Your task to perform on an android device: turn on wifi Image 0: 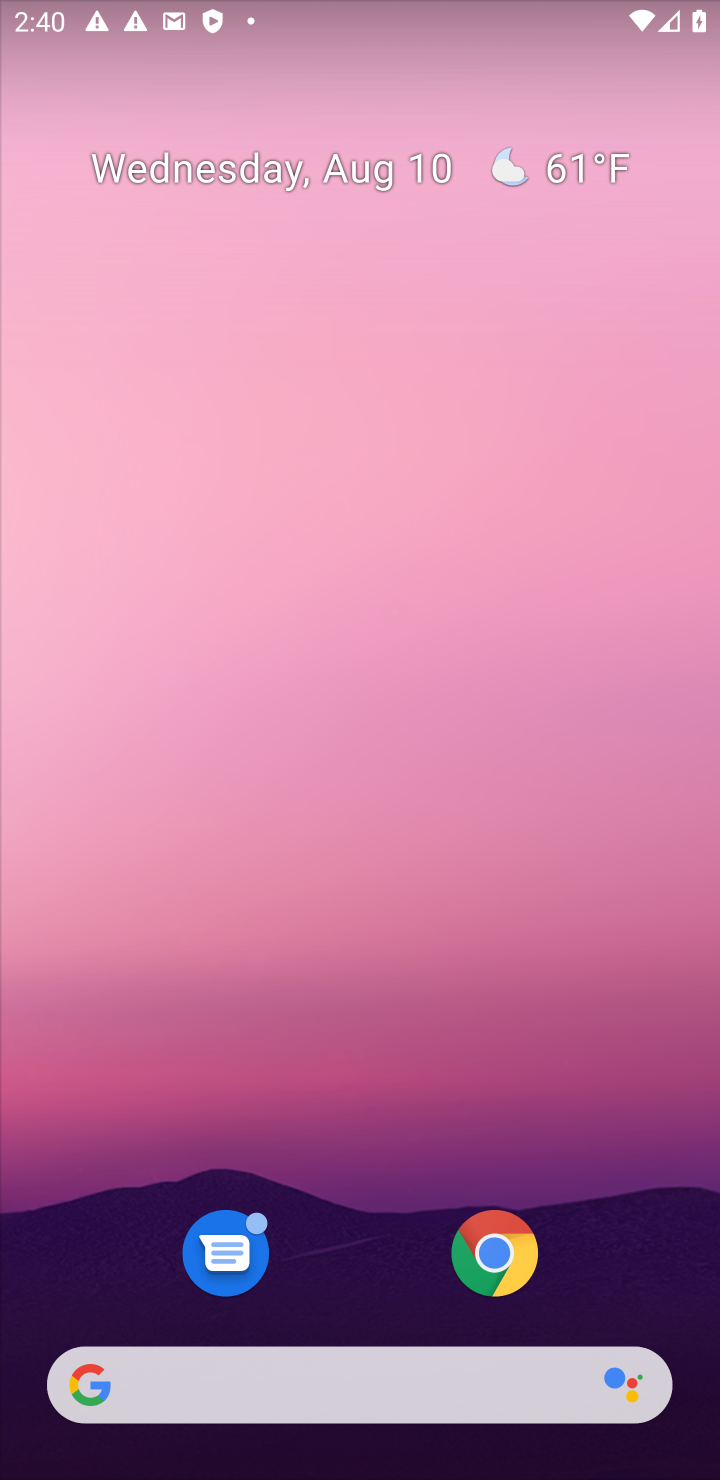
Step 0: drag from (403, 1118) to (455, 401)
Your task to perform on an android device: turn on wifi Image 1: 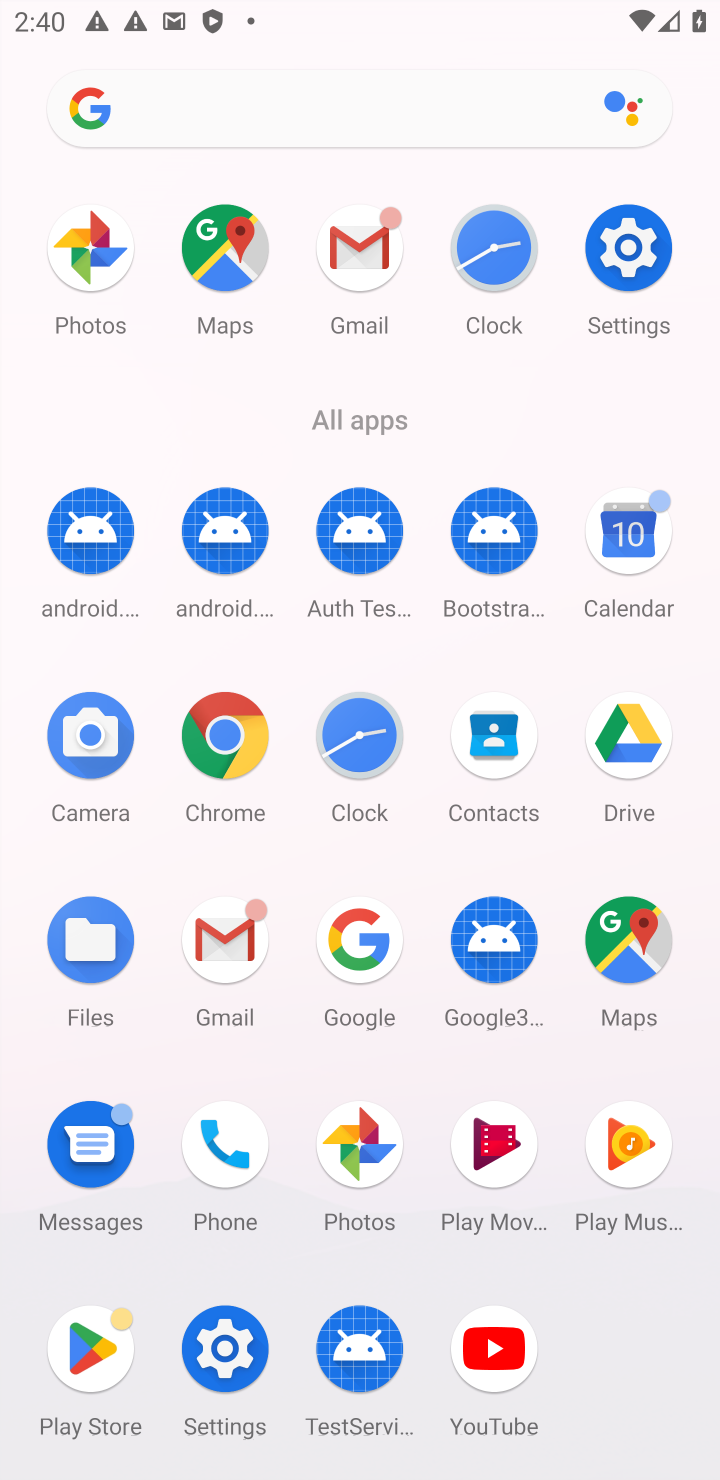
Step 1: click (646, 252)
Your task to perform on an android device: turn on wifi Image 2: 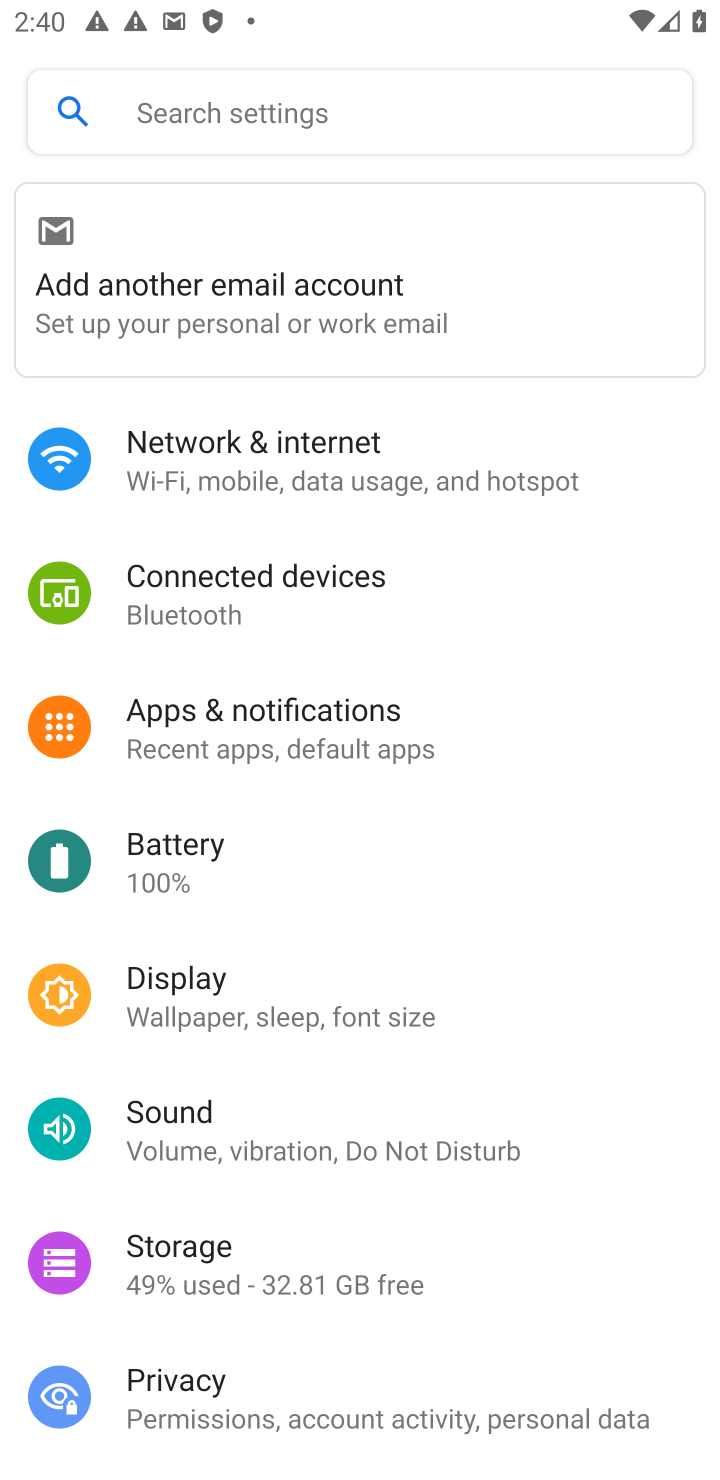
Step 2: task complete